Your task to perform on an android device: Open ESPN.com Image 0: 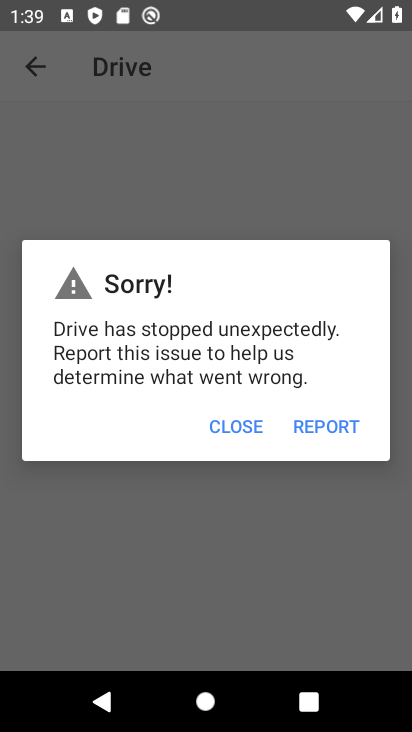
Step 0: press home button
Your task to perform on an android device: Open ESPN.com Image 1: 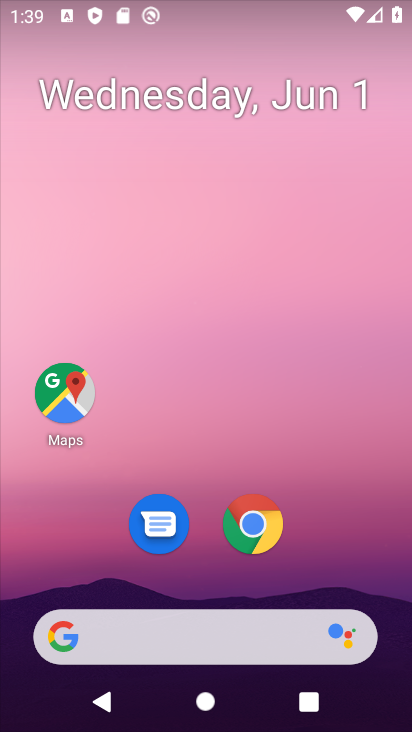
Step 1: click (258, 647)
Your task to perform on an android device: Open ESPN.com Image 2: 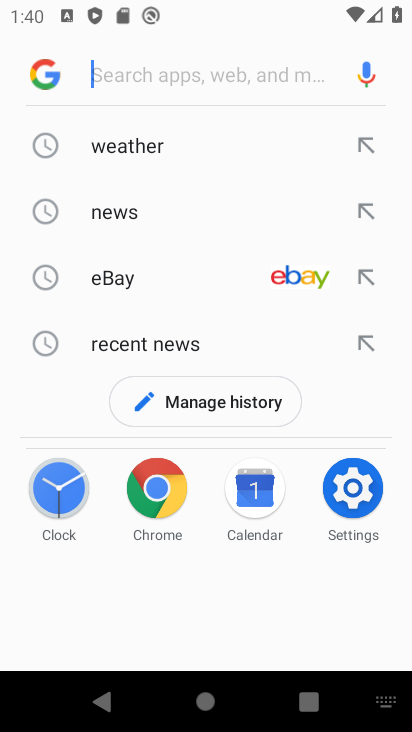
Step 2: type "espn.com"
Your task to perform on an android device: Open ESPN.com Image 3: 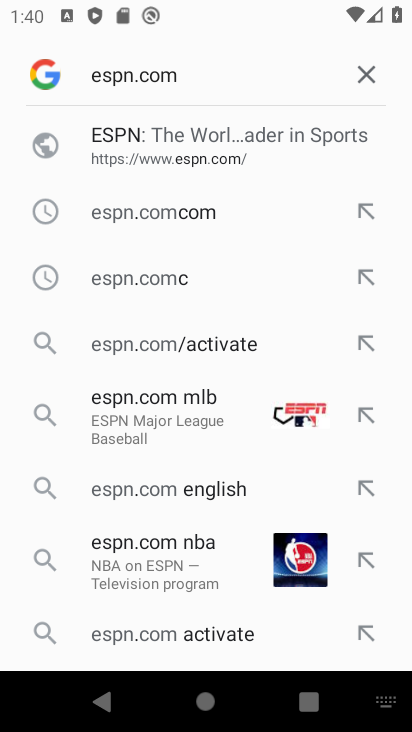
Step 3: click (113, 130)
Your task to perform on an android device: Open ESPN.com Image 4: 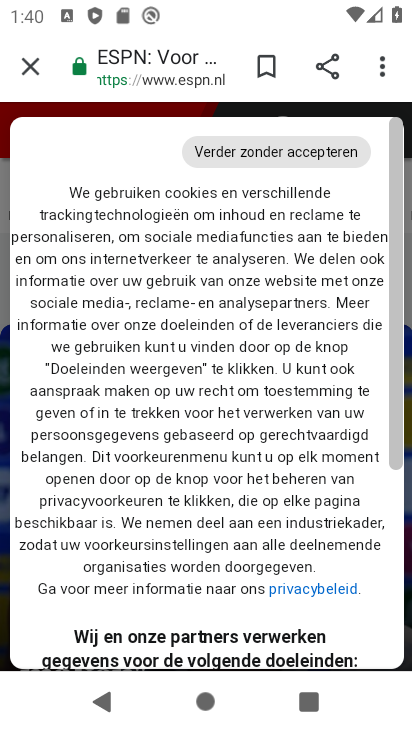
Step 4: task complete